Your task to perform on an android device: turn on data saver in the chrome app Image 0: 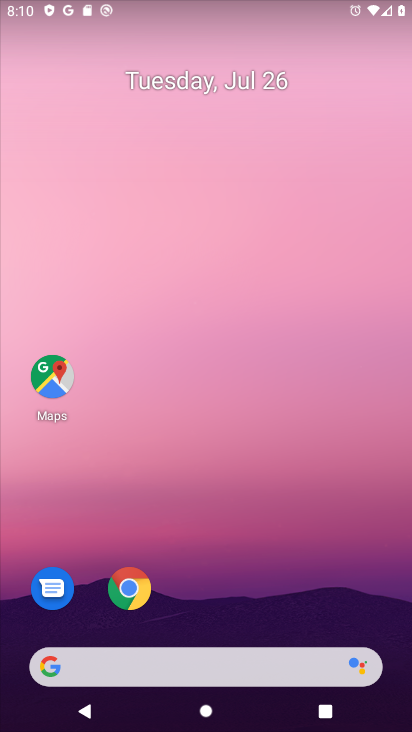
Step 0: drag from (192, 643) to (197, 231)
Your task to perform on an android device: turn on data saver in the chrome app Image 1: 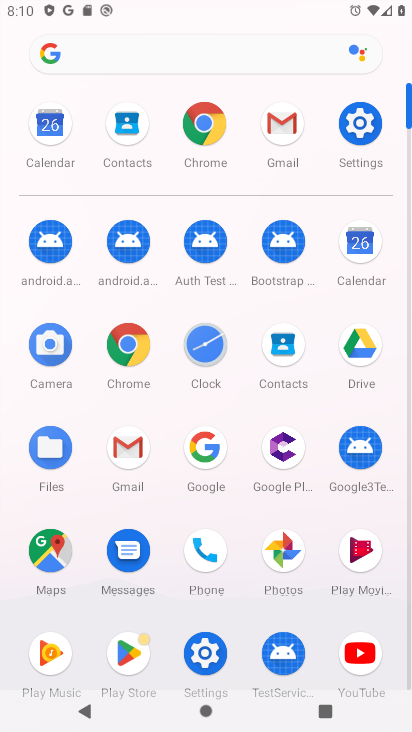
Step 1: click (219, 137)
Your task to perform on an android device: turn on data saver in the chrome app Image 2: 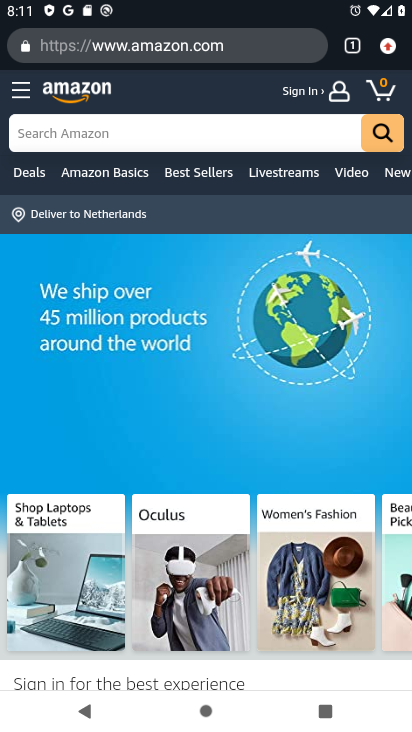
Step 2: click (395, 44)
Your task to perform on an android device: turn on data saver in the chrome app Image 3: 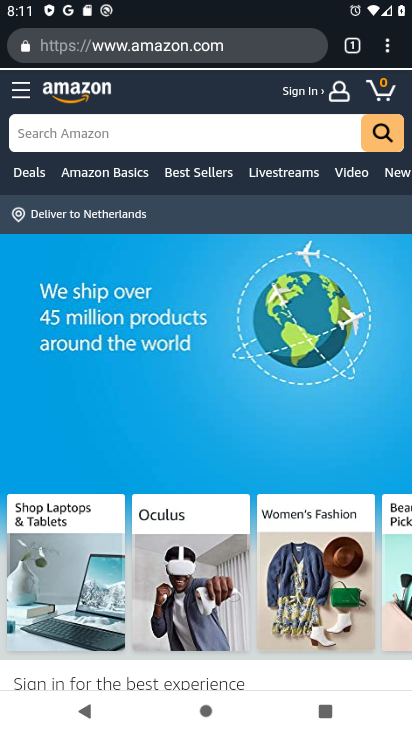
Step 3: click (391, 51)
Your task to perform on an android device: turn on data saver in the chrome app Image 4: 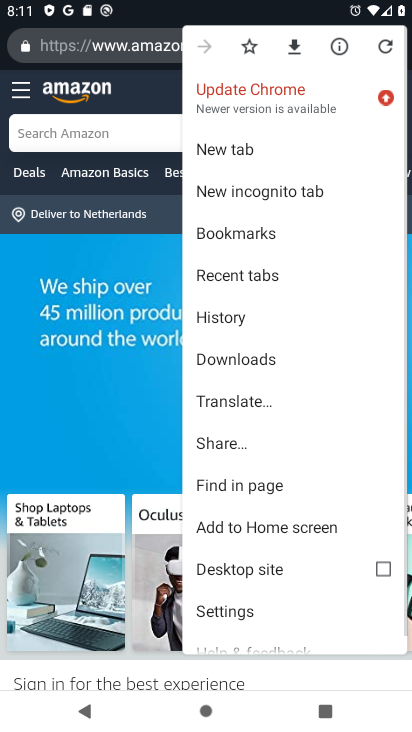
Step 4: click (249, 621)
Your task to perform on an android device: turn on data saver in the chrome app Image 5: 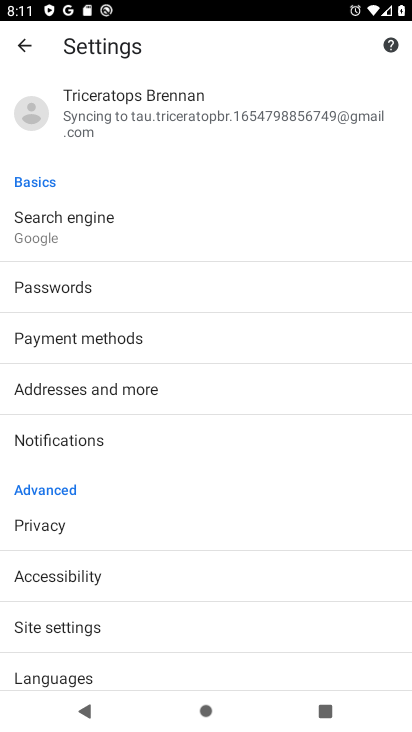
Step 5: drag from (84, 592) to (204, 146)
Your task to perform on an android device: turn on data saver in the chrome app Image 6: 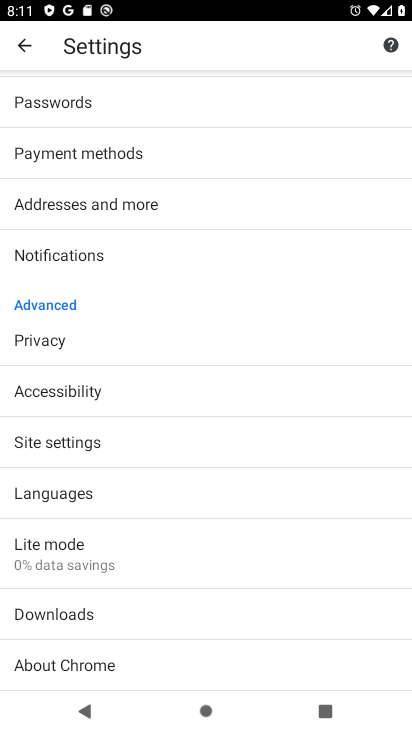
Step 6: click (71, 557)
Your task to perform on an android device: turn on data saver in the chrome app Image 7: 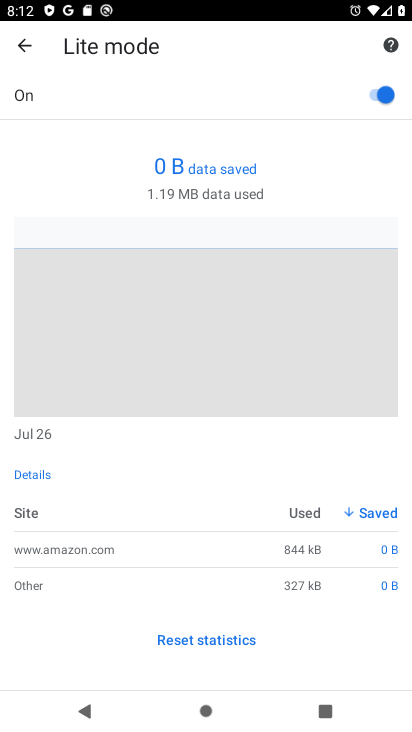
Step 7: task complete